Your task to perform on an android device: View the shopping cart on target. Add "rayovac triple a" to the cart on target, then select checkout. Image 0: 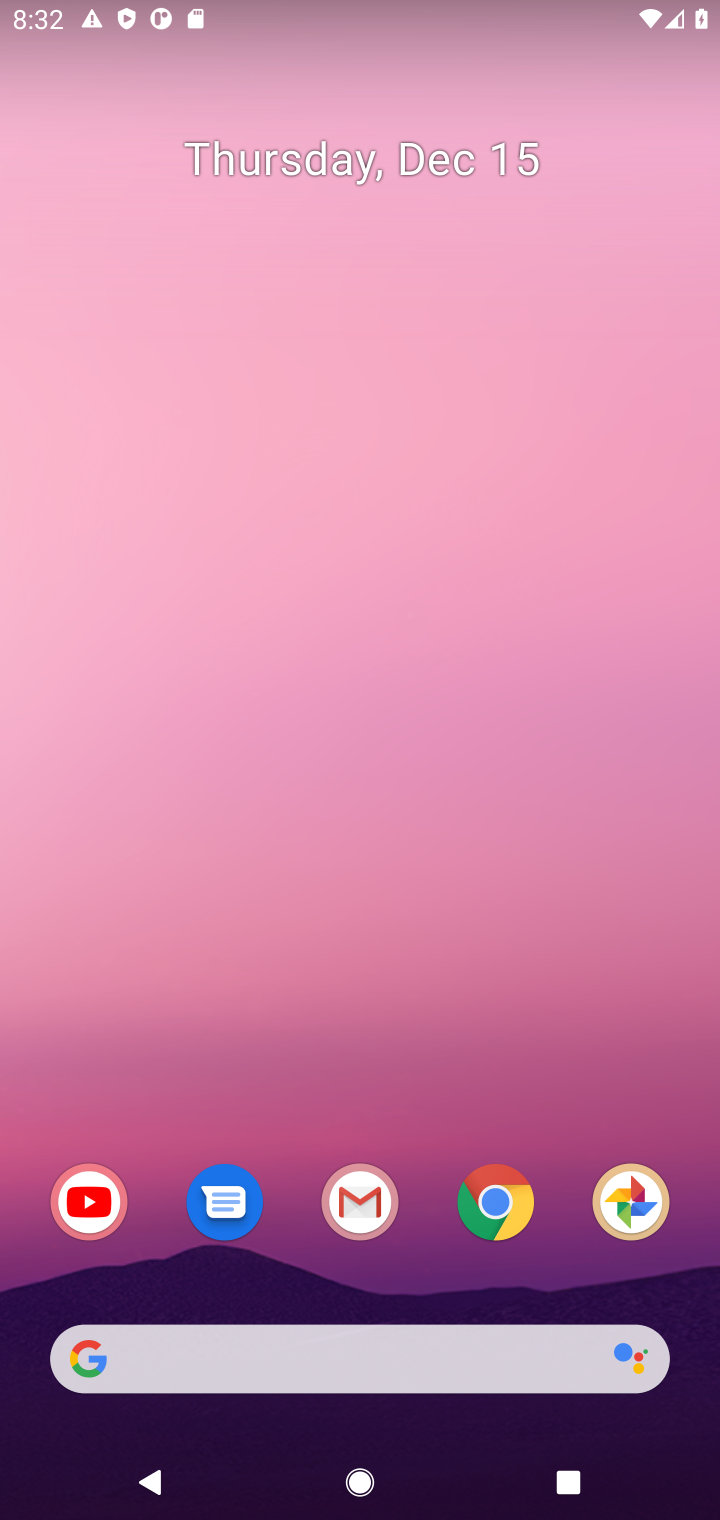
Step 0: click (493, 1205)
Your task to perform on an android device: View the shopping cart on target. Add "rayovac triple a" to the cart on target, then select checkout. Image 1: 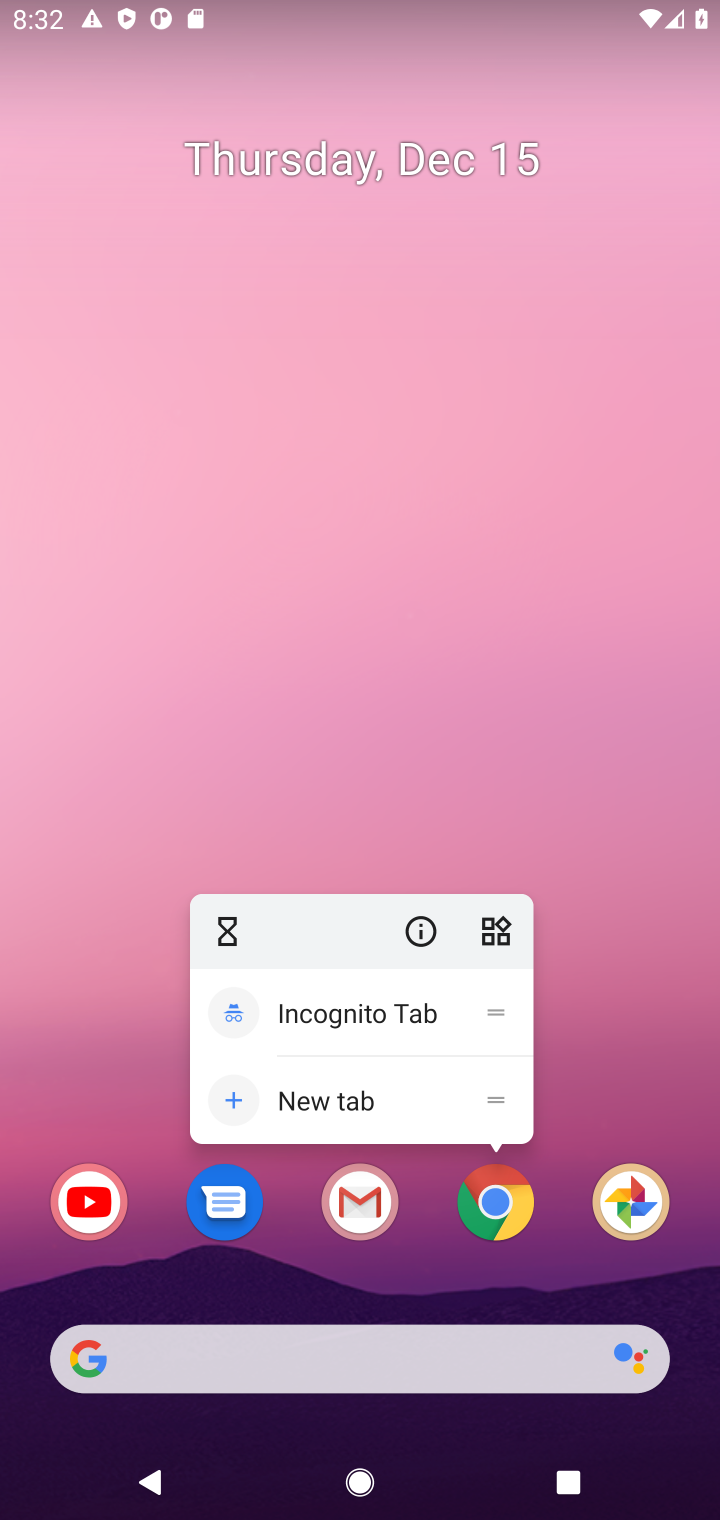
Step 1: click (493, 1205)
Your task to perform on an android device: View the shopping cart on target. Add "rayovac triple a" to the cart on target, then select checkout. Image 2: 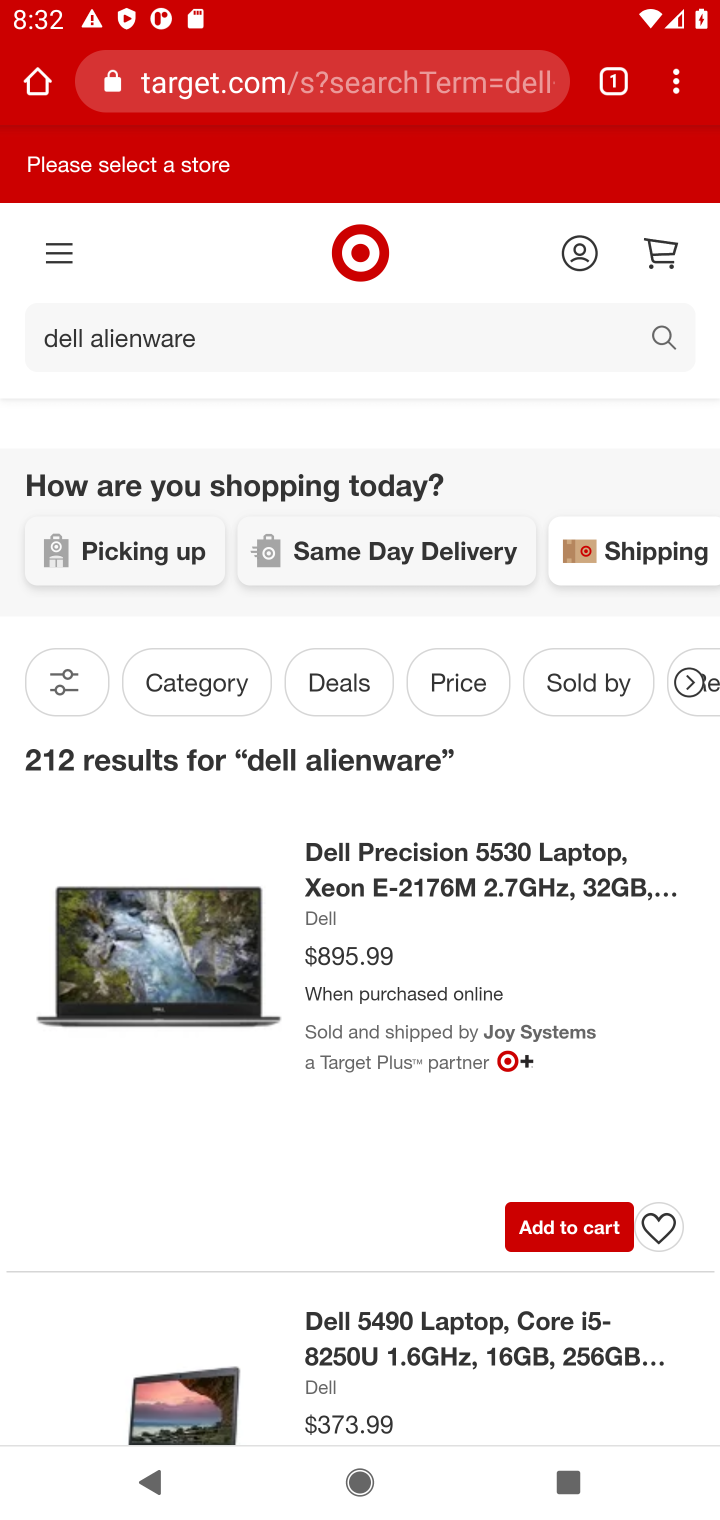
Step 2: click (659, 255)
Your task to perform on an android device: View the shopping cart on target. Add "rayovac triple a" to the cart on target, then select checkout. Image 3: 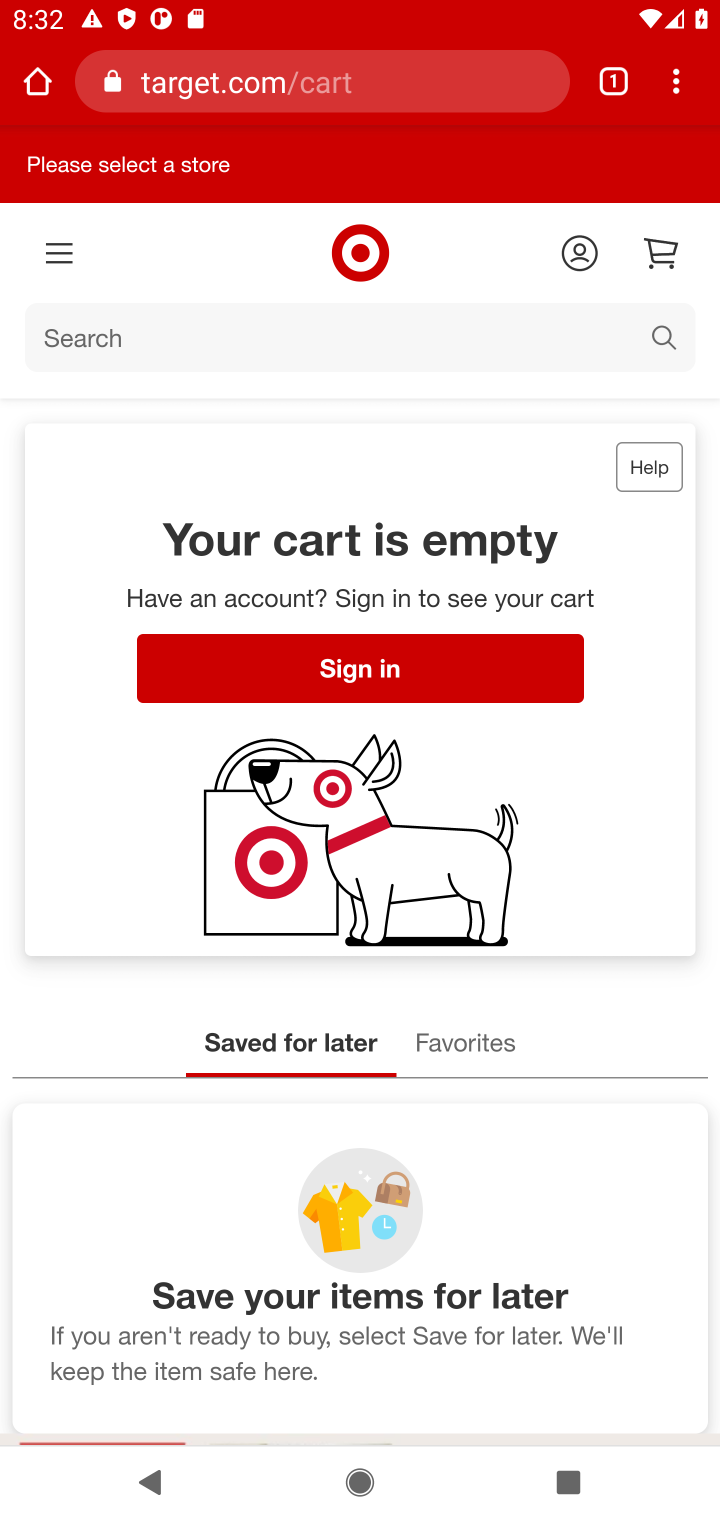
Step 3: click (91, 342)
Your task to perform on an android device: View the shopping cart on target. Add "rayovac triple a" to the cart on target, then select checkout. Image 4: 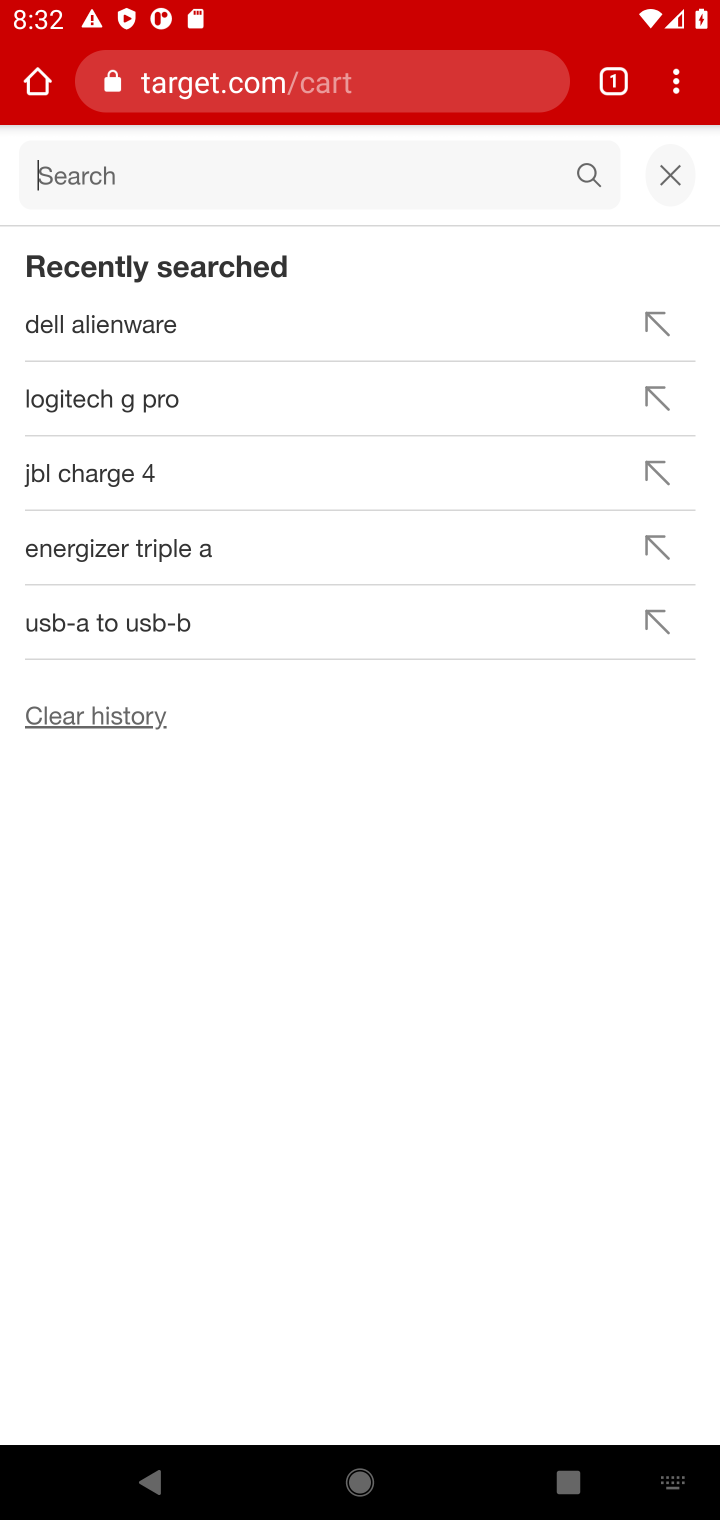
Step 4: type "rayovac triple a"
Your task to perform on an android device: View the shopping cart on target. Add "rayovac triple a" to the cart on target, then select checkout. Image 5: 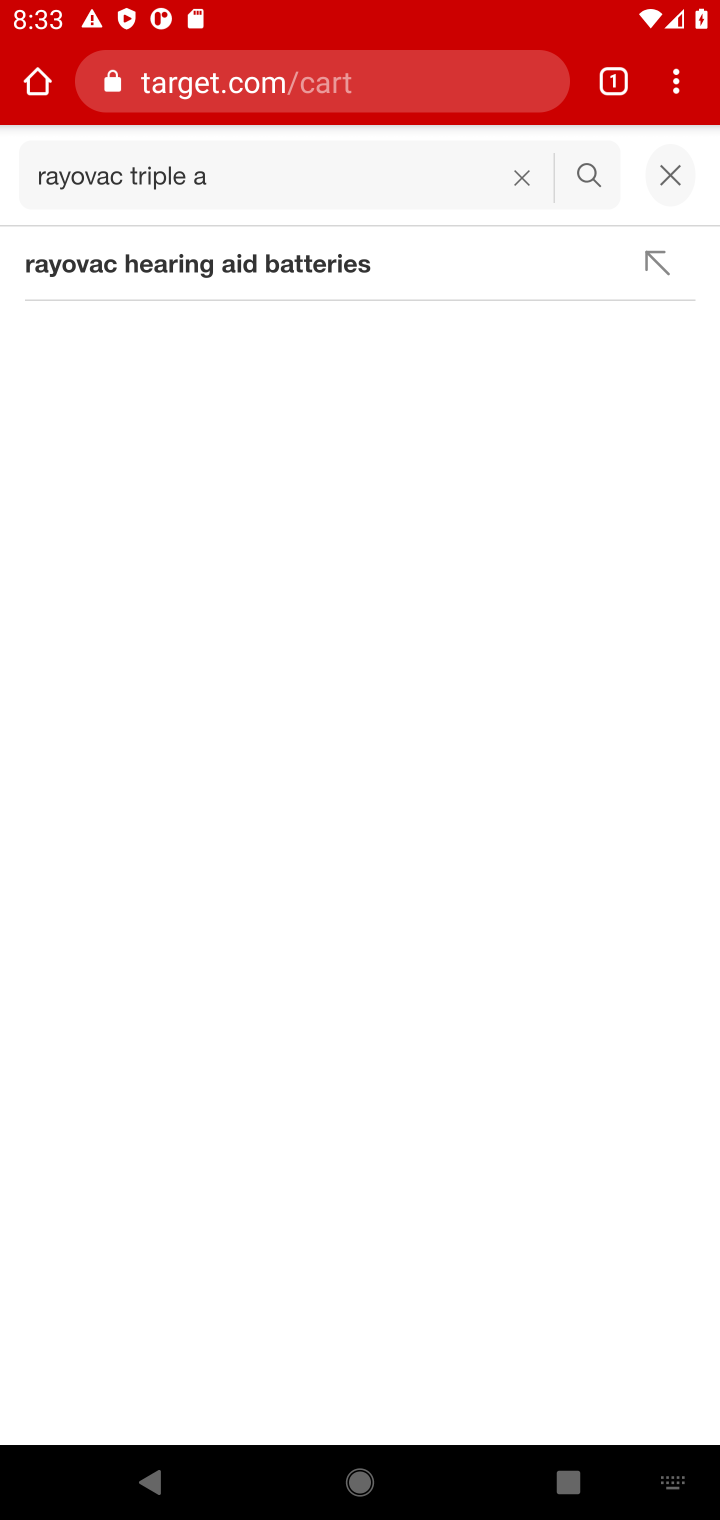
Step 5: click (592, 175)
Your task to perform on an android device: View the shopping cart on target. Add "rayovac triple a" to the cart on target, then select checkout. Image 6: 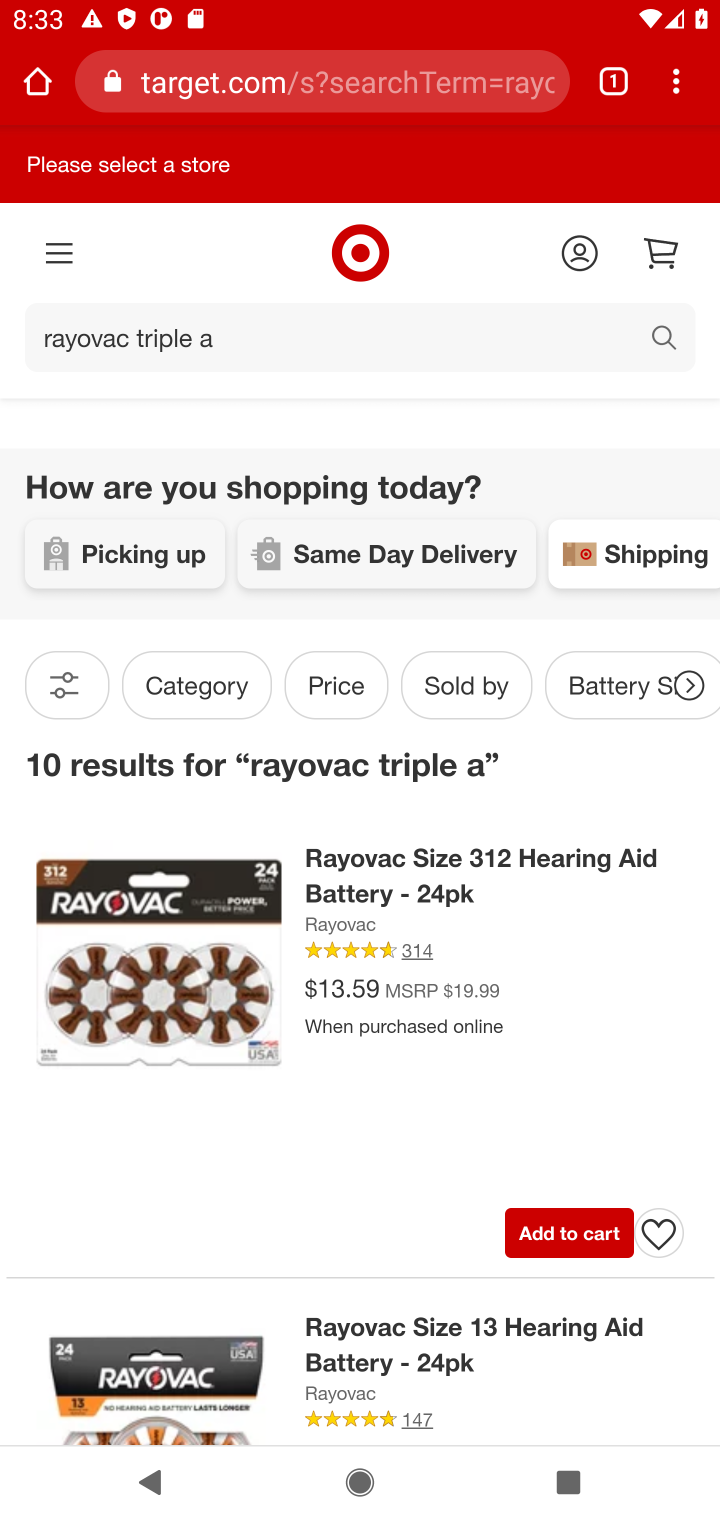
Step 6: task complete